Your task to perform on an android device: Go to wifi settings Image 0: 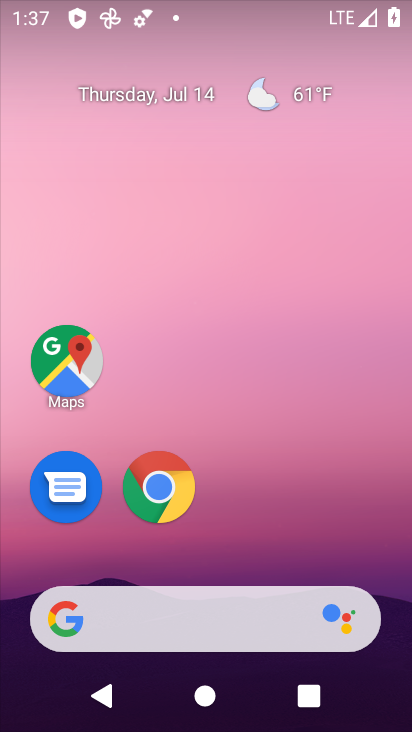
Step 0: drag from (360, 533) to (326, 101)
Your task to perform on an android device: Go to wifi settings Image 1: 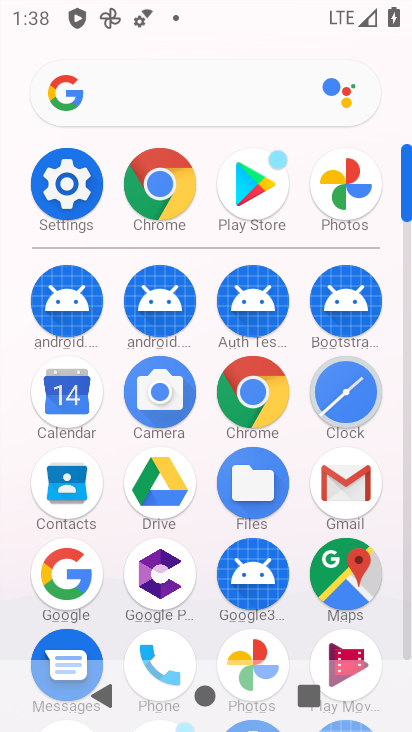
Step 1: click (78, 197)
Your task to perform on an android device: Go to wifi settings Image 2: 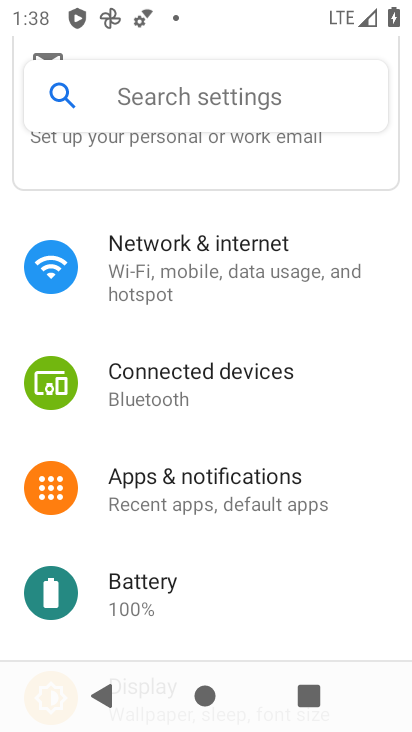
Step 2: drag from (343, 527) to (357, 384)
Your task to perform on an android device: Go to wifi settings Image 3: 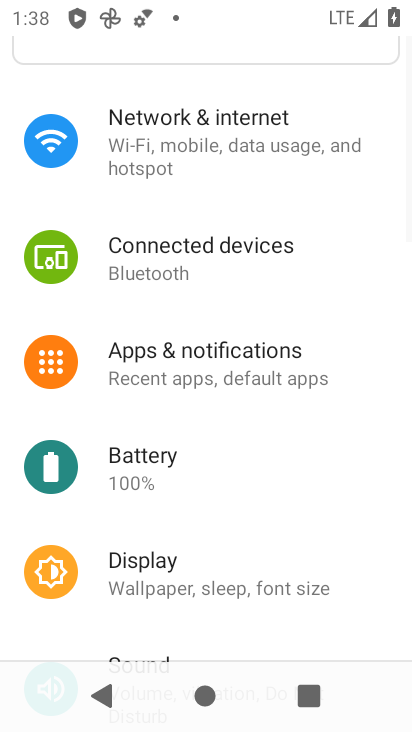
Step 3: drag from (357, 498) to (366, 299)
Your task to perform on an android device: Go to wifi settings Image 4: 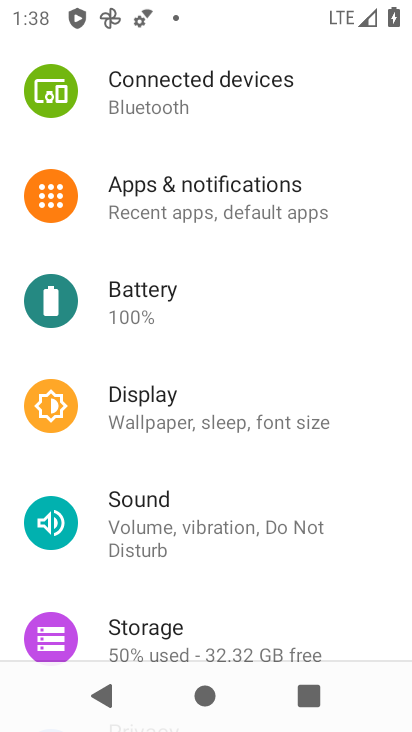
Step 4: drag from (365, 545) to (367, 407)
Your task to perform on an android device: Go to wifi settings Image 5: 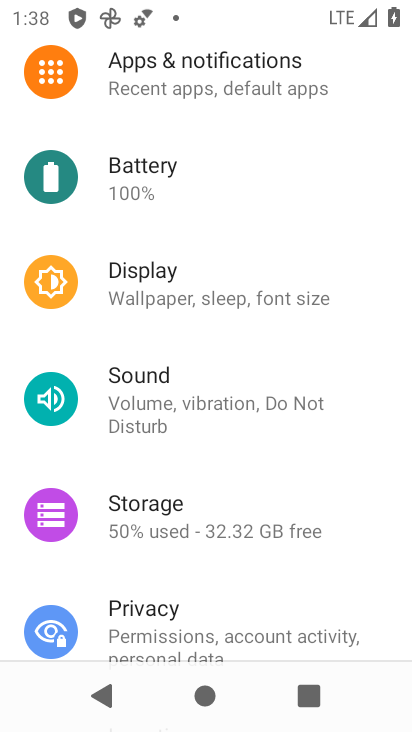
Step 5: drag from (346, 506) to (346, 415)
Your task to perform on an android device: Go to wifi settings Image 6: 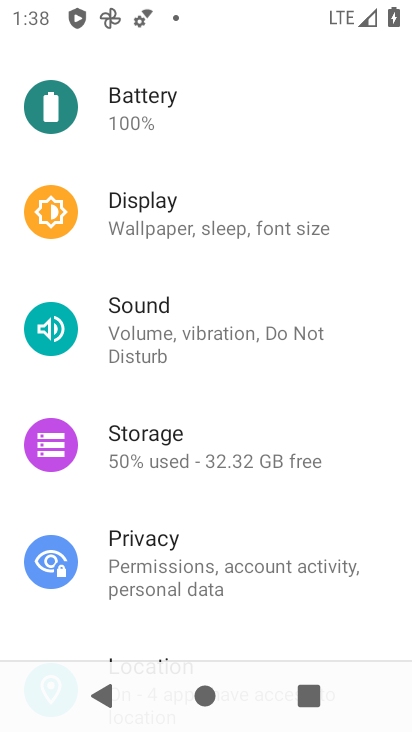
Step 6: drag from (355, 563) to (362, 442)
Your task to perform on an android device: Go to wifi settings Image 7: 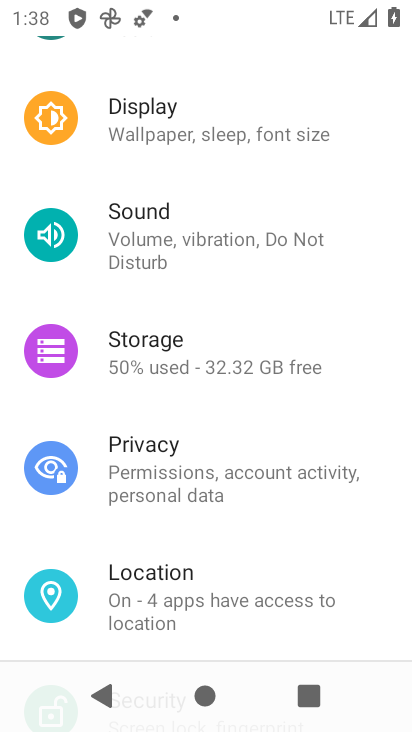
Step 7: drag from (361, 562) to (358, 446)
Your task to perform on an android device: Go to wifi settings Image 8: 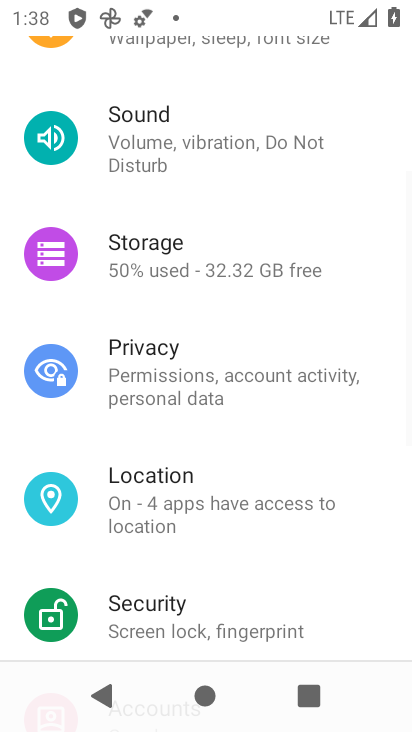
Step 8: drag from (358, 570) to (378, 437)
Your task to perform on an android device: Go to wifi settings Image 9: 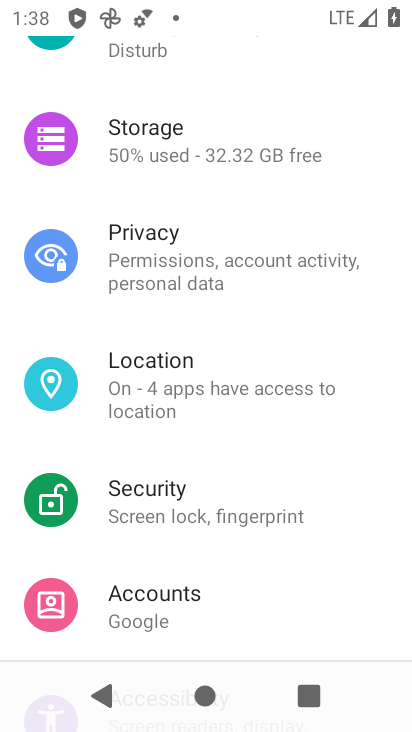
Step 9: drag from (367, 338) to (367, 418)
Your task to perform on an android device: Go to wifi settings Image 10: 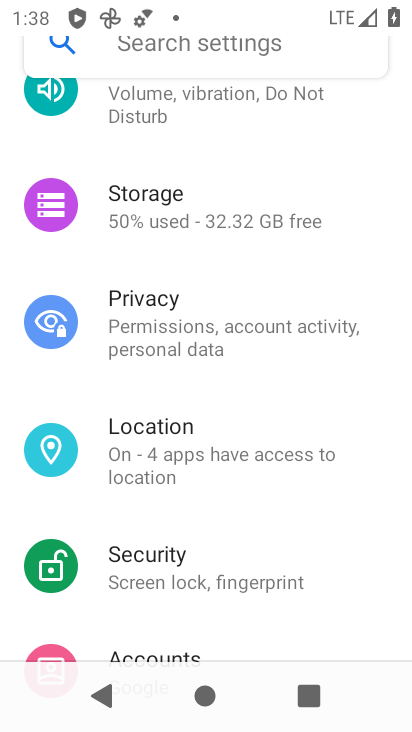
Step 10: drag from (364, 292) to (369, 388)
Your task to perform on an android device: Go to wifi settings Image 11: 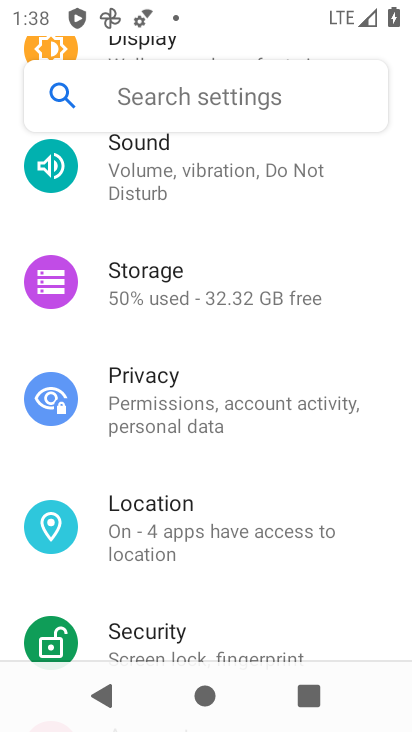
Step 11: drag from (355, 273) to (358, 363)
Your task to perform on an android device: Go to wifi settings Image 12: 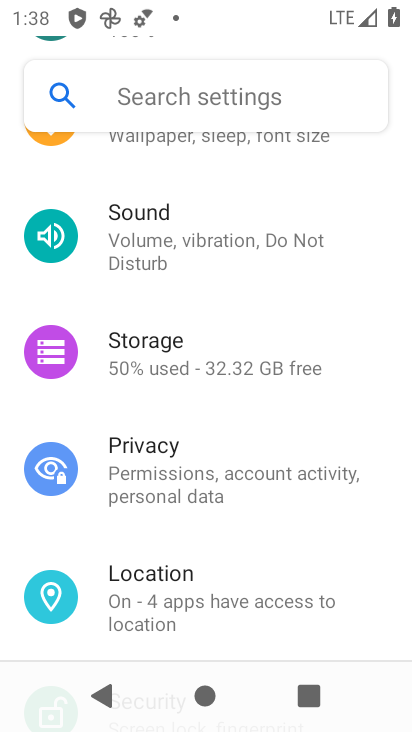
Step 12: drag from (359, 236) to (359, 334)
Your task to perform on an android device: Go to wifi settings Image 13: 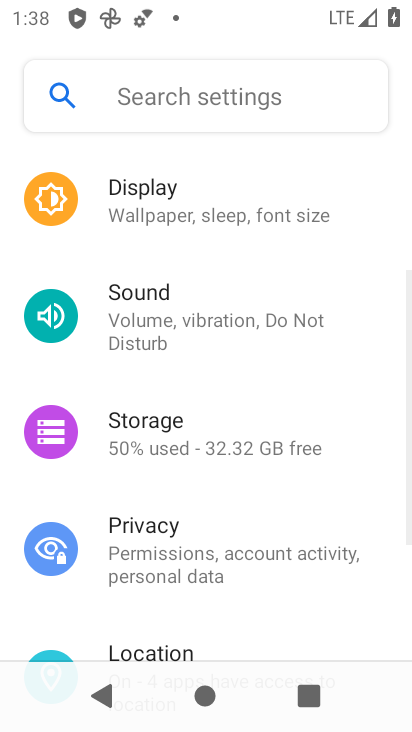
Step 13: drag from (358, 218) to (363, 328)
Your task to perform on an android device: Go to wifi settings Image 14: 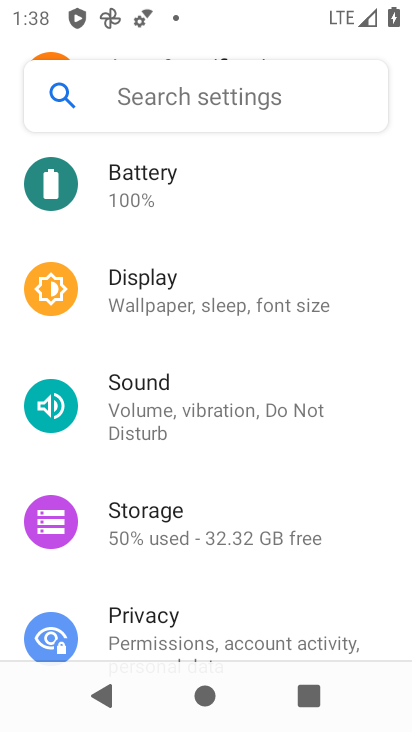
Step 14: drag from (358, 222) to (363, 341)
Your task to perform on an android device: Go to wifi settings Image 15: 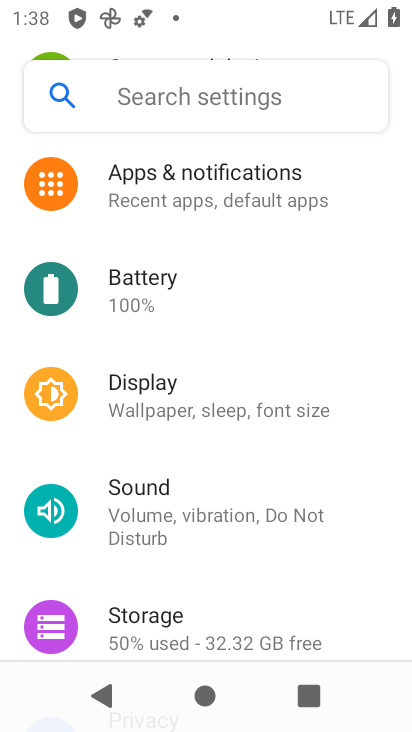
Step 15: drag from (357, 227) to (361, 347)
Your task to perform on an android device: Go to wifi settings Image 16: 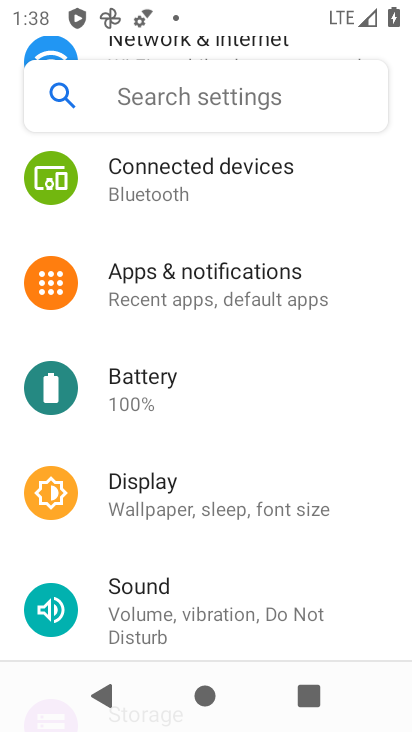
Step 16: drag from (352, 253) to (343, 410)
Your task to perform on an android device: Go to wifi settings Image 17: 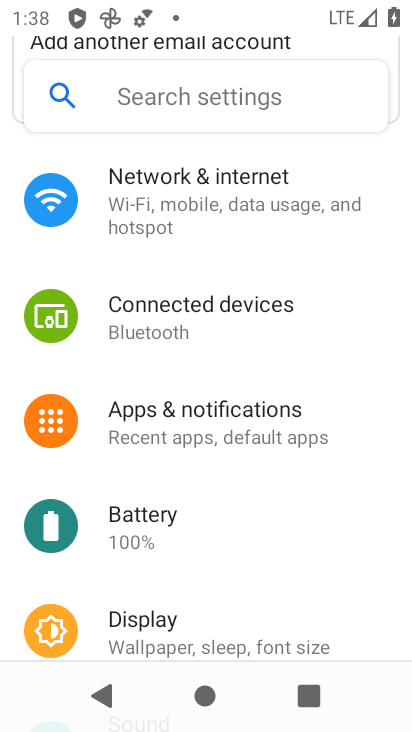
Step 17: drag from (343, 288) to (341, 410)
Your task to perform on an android device: Go to wifi settings Image 18: 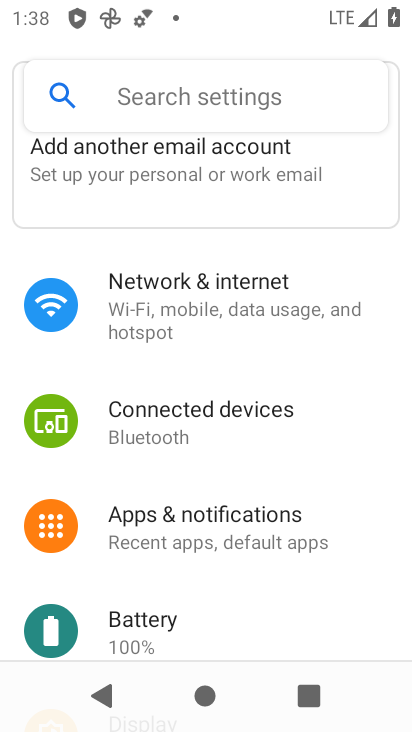
Step 18: click (288, 310)
Your task to perform on an android device: Go to wifi settings Image 19: 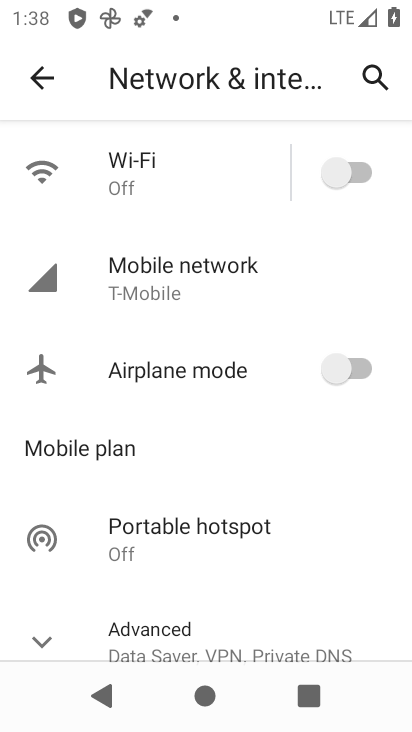
Step 19: click (154, 174)
Your task to perform on an android device: Go to wifi settings Image 20: 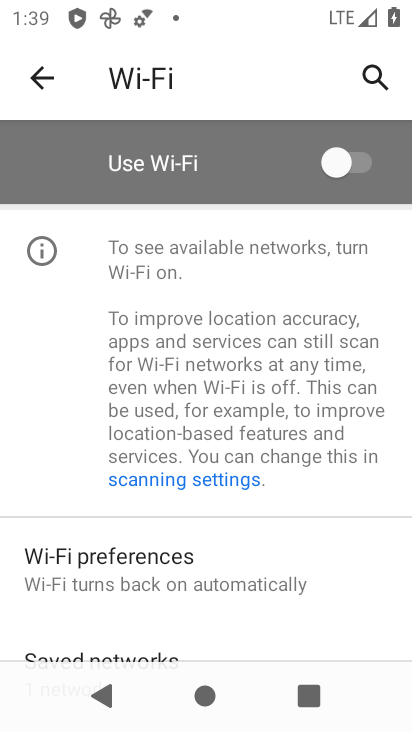
Step 20: task complete